Your task to perform on an android device: turn on data saver in the chrome app Image 0: 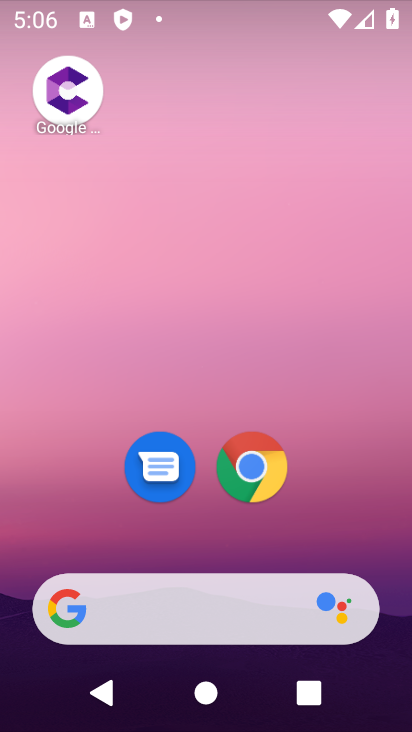
Step 0: drag from (328, 534) to (219, 2)
Your task to perform on an android device: turn on data saver in the chrome app Image 1: 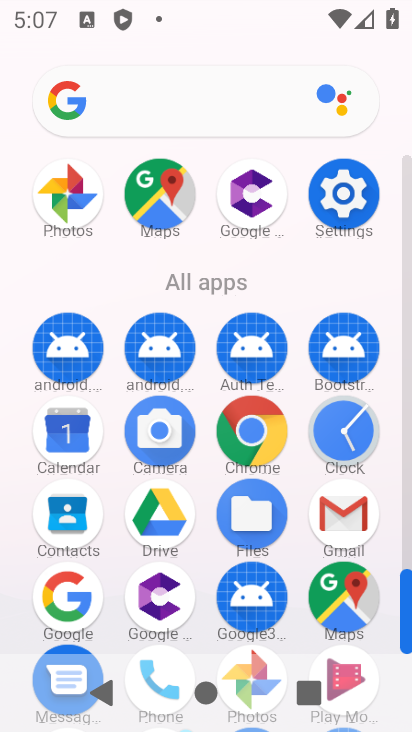
Step 1: click (345, 517)
Your task to perform on an android device: turn on data saver in the chrome app Image 2: 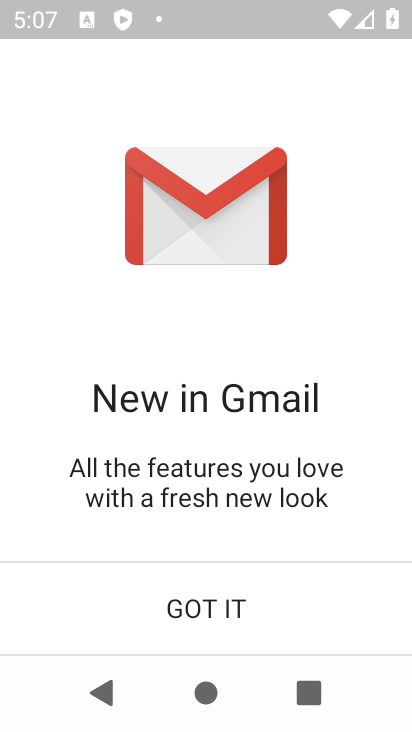
Step 2: click (247, 591)
Your task to perform on an android device: turn on data saver in the chrome app Image 3: 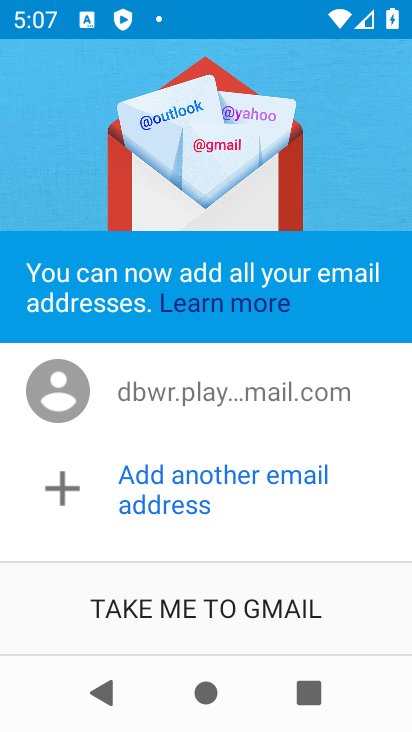
Step 3: click (272, 611)
Your task to perform on an android device: turn on data saver in the chrome app Image 4: 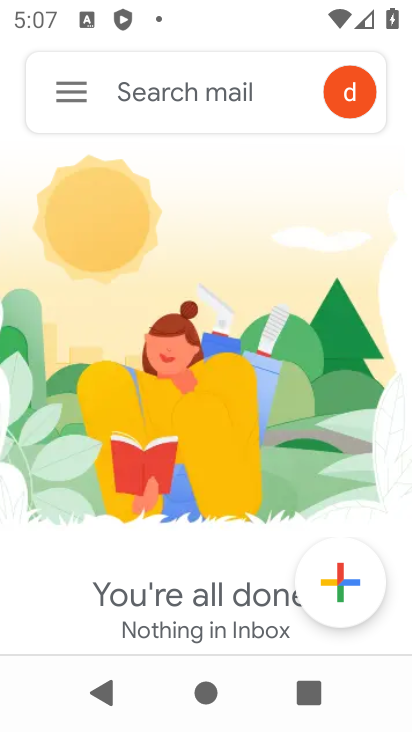
Step 4: press home button
Your task to perform on an android device: turn on data saver in the chrome app Image 5: 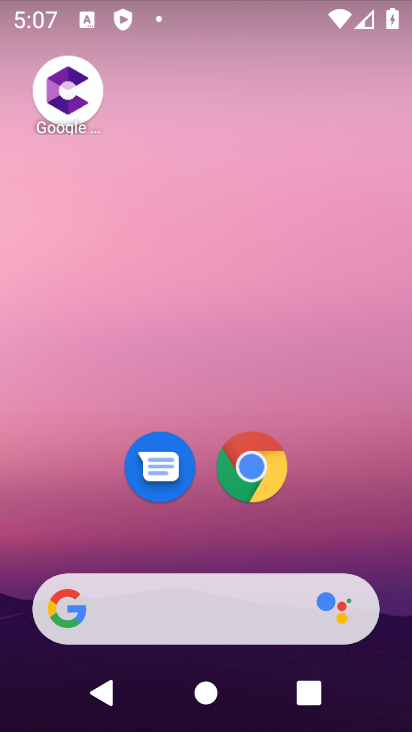
Step 5: click (272, 464)
Your task to perform on an android device: turn on data saver in the chrome app Image 6: 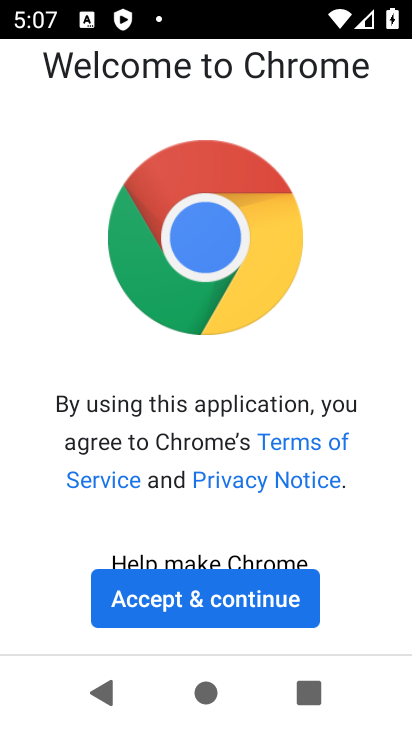
Step 6: click (213, 570)
Your task to perform on an android device: turn on data saver in the chrome app Image 7: 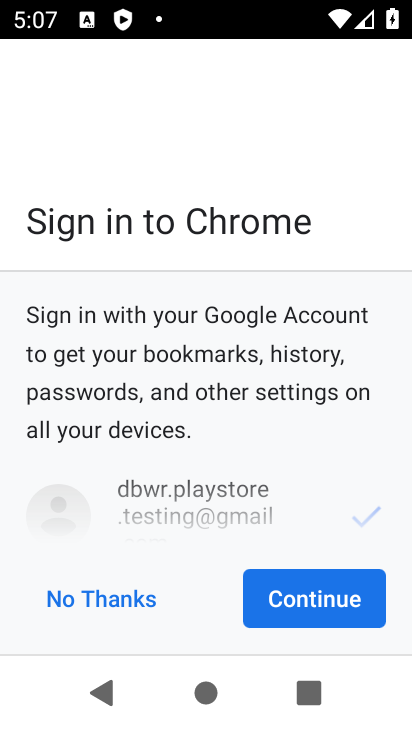
Step 7: click (374, 610)
Your task to perform on an android device: turn on data saver in the chrome app Image 8: 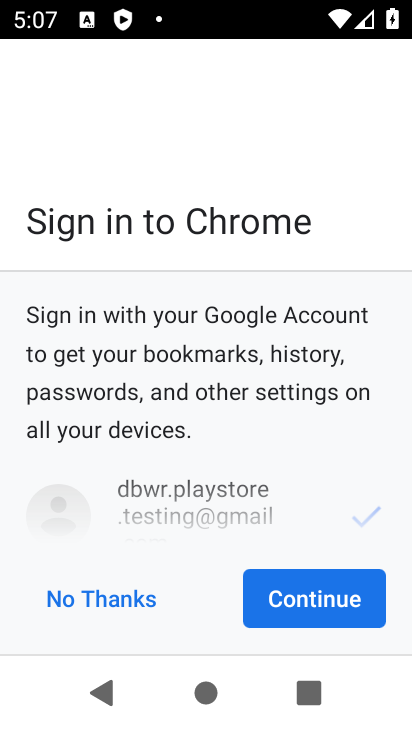
Step 8: click (375, 605)
Your task to perform on an android device: turn on data saver in the chrome app Image 9: 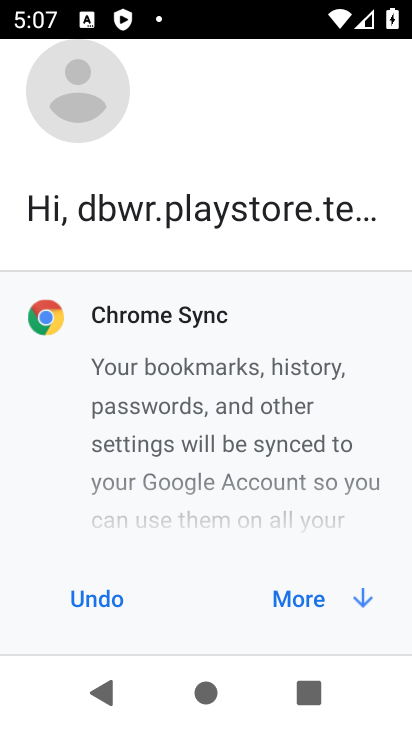
Step 9: click (375, 605)
Your task to perform on an android device: turn on data saver in the chrome app Image 10: 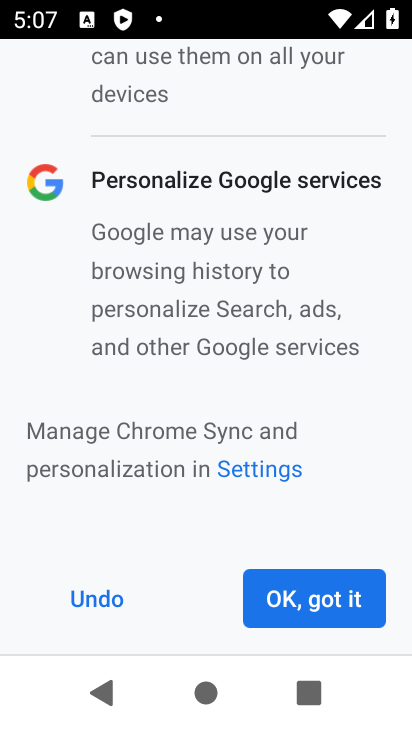
Step 10: click (375, 605)
Your task to perform on an android device: turn on data saver in the chrome app Image 11: 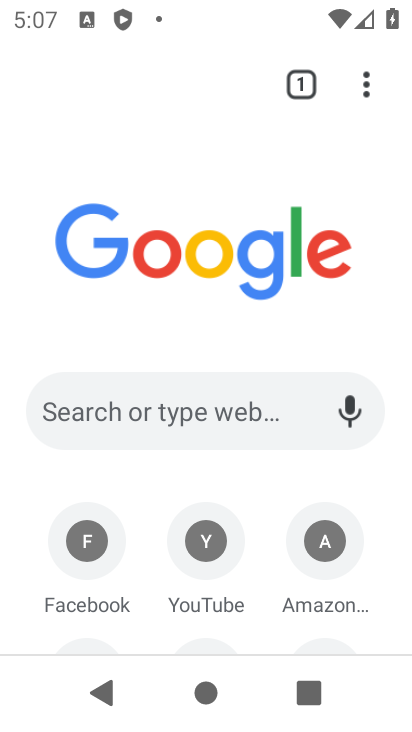
Step 11: click (361, 82)
Your task to perform on an android device: turn on data saver in the chrome app Image 12: 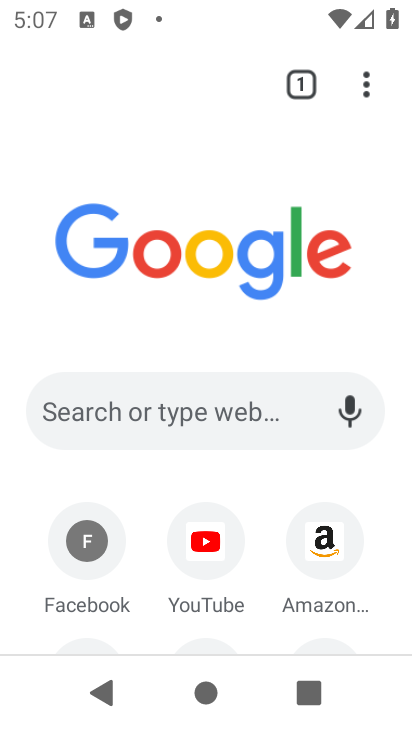
Step 12: click (373, 65)
Your task to perform on an android device: turn on data saver in the chrome app Image 13: 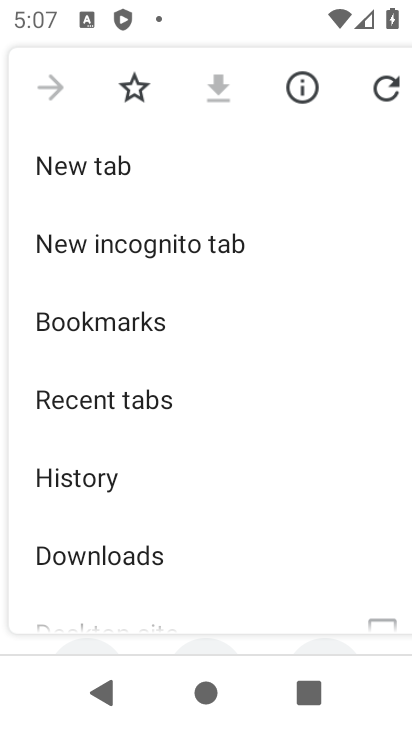
Step 13: drag from (251, 257) to (217, 50)
Your task to perform on an android device: turn on data saver in the chrome app Image 14: 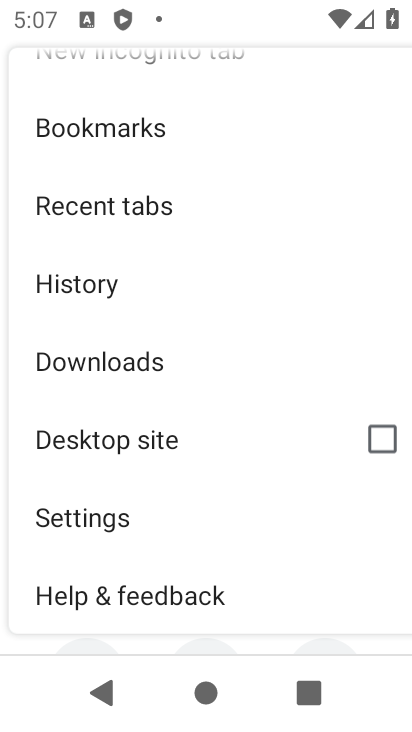
Step 14: click (187, 506)
Your task to perform on an android device: turn on data saver in the chrome app Image 15: 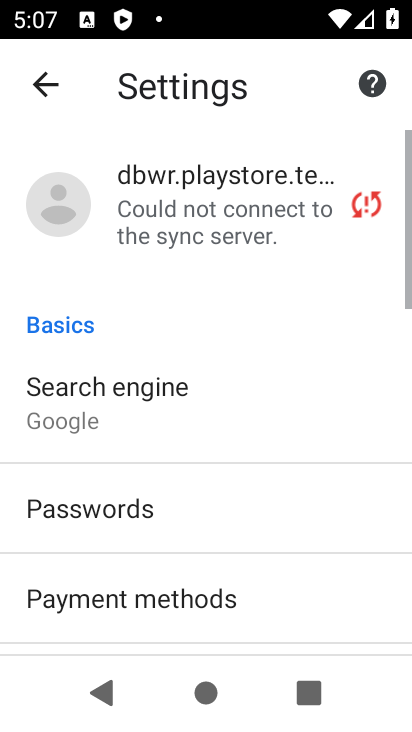
Step 15: drag from (260, 398) to (250, 92)
Your task to perform on an android device: turn on data saver in the chrome app Image 16: 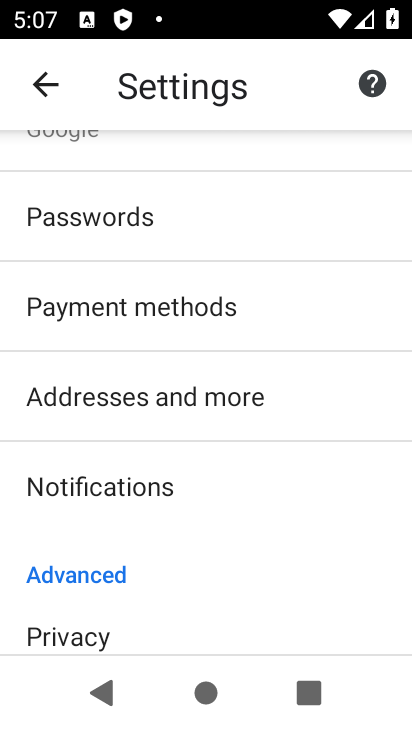
Step 16: drag from (235, 320) to (234, 81)
Your task to perform on an android device: turn on data saver in the chrome app Image 17: 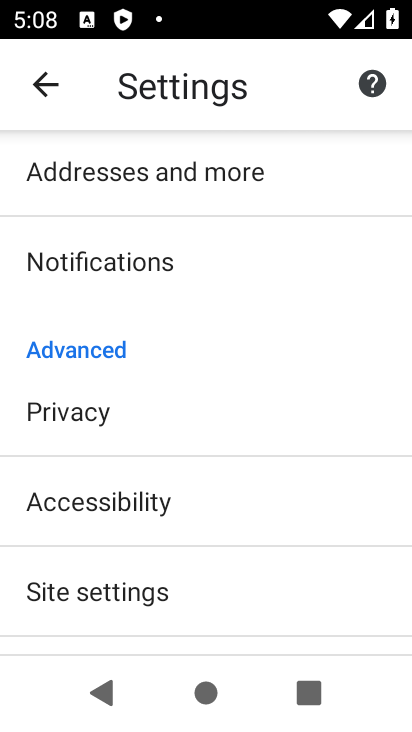
Step 17: drag from (219, 550) to (236, 153)
Your task to perform on an android device: turn on data saver in the chrome app Image 18: 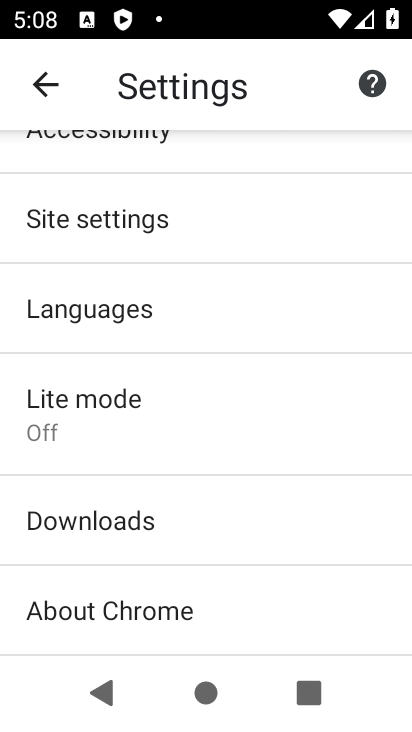
Step 18: drag from (201, 458) to (214, 220)
Your task to perform on an android device: turn on data saver in the chrome app Image 19: 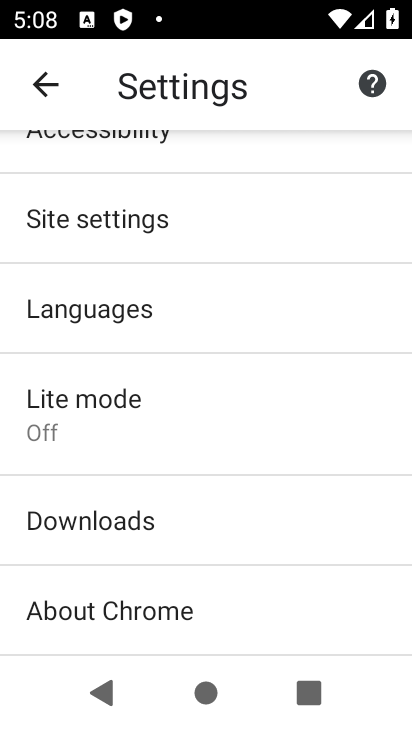
Step 19: click (178, 397)
Your task to perform on an android device: turn on data saver in the chrome app Image 20: 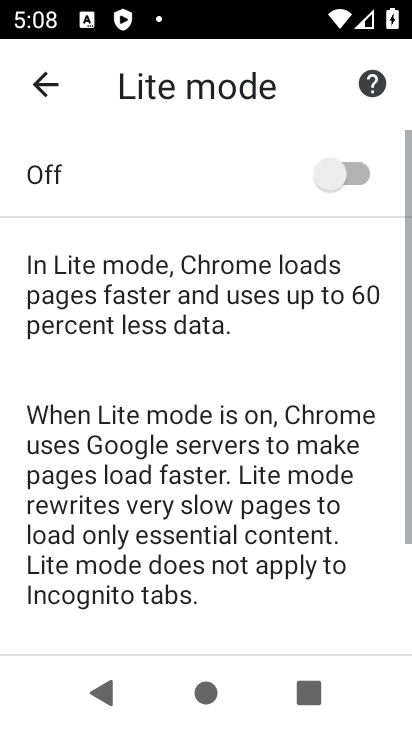
Step 20: click (353, 166)
Your task to perform on an android device: turn on data saver in the chrome app Image 21: 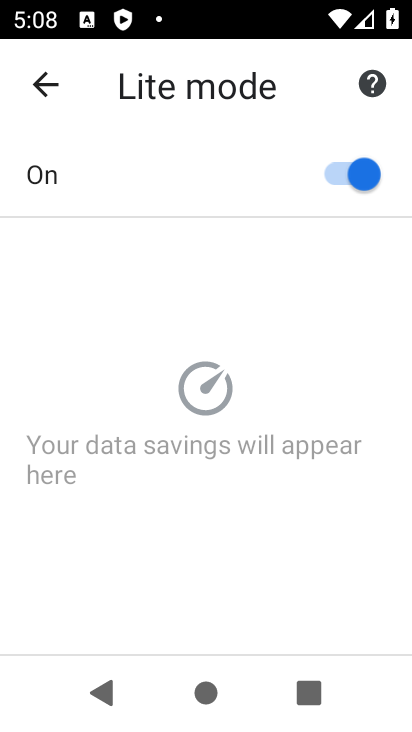
Step 21: task complete